Your task to perform on an android device: change keyboard looks Image 0: 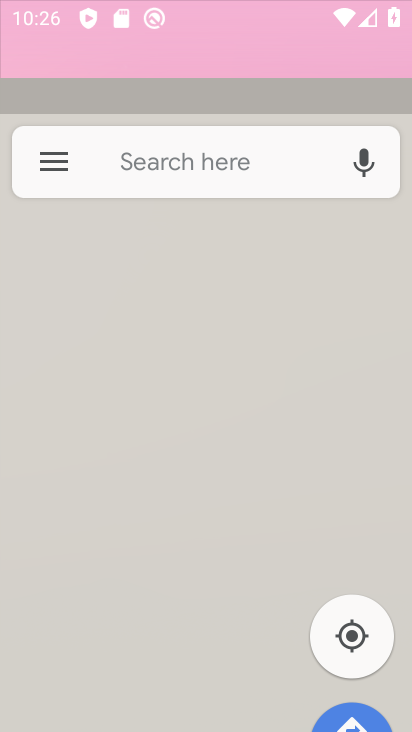
Step 0: click (252, 1)
Your task to perform on an android device: change keyboard looks Image 1: 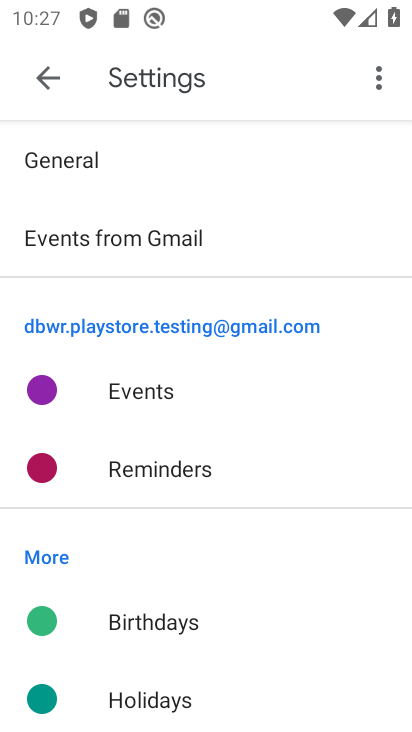
Step 1: press home button
Your task to perform on an android device: change keyboard looks Image 2: 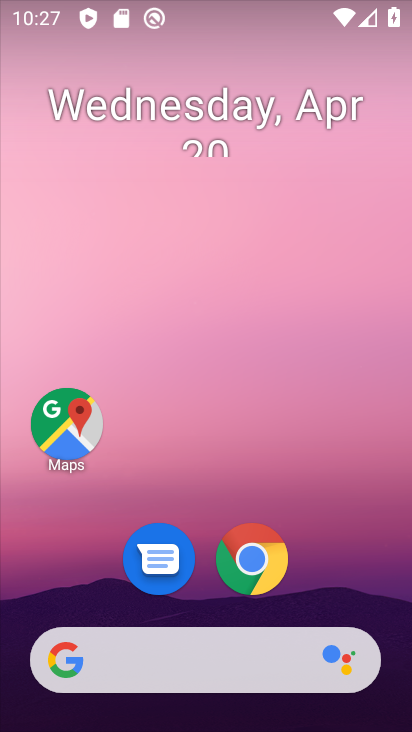
Step 2: drag from (293, 620) to (301, 12)
Your task to perform on an android device: change keyboard looks Image 3: 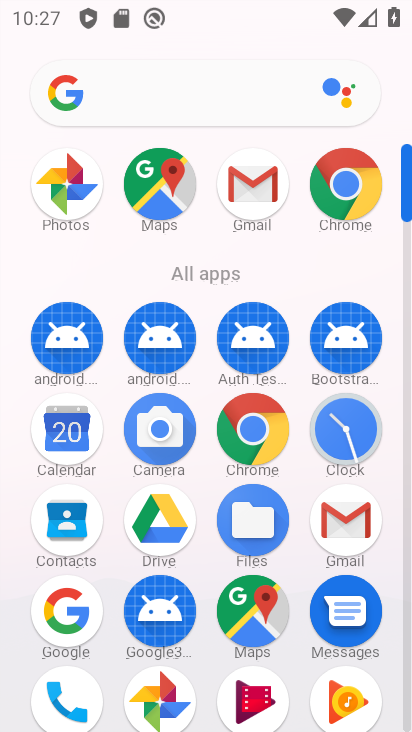
Step 3: drag from (213, 587) to (209, 92)
Your task to perform on an android device: change keyboard looks Image 4: 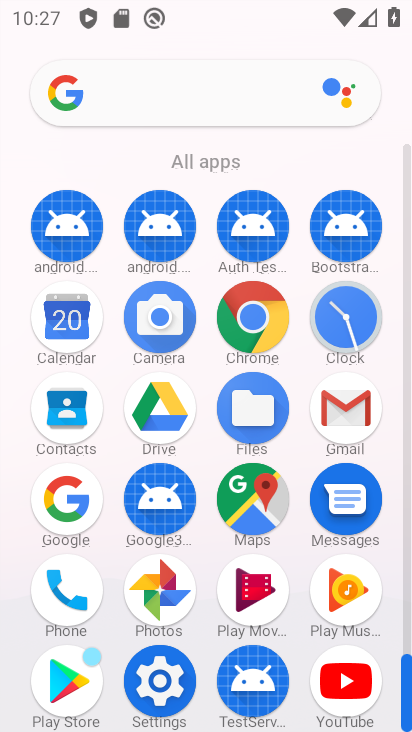
Step 4: click (157, 663)
Your task to perform on an android device: change keyboard looks Image 5: 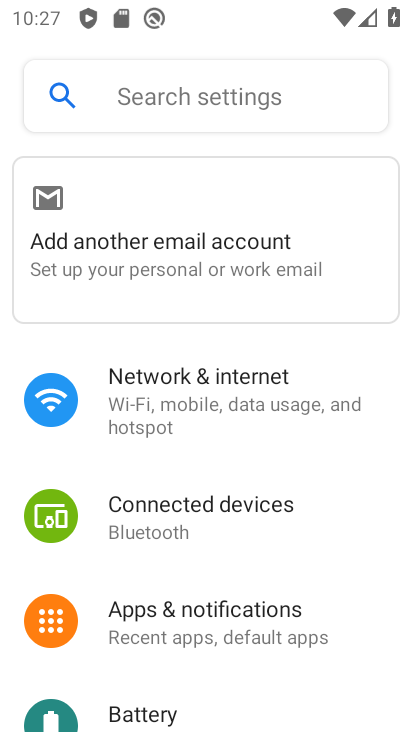
Step 5: drag from (158, 658) to (201, 26)
Your task to perform on an android device: change keyboard looks Image 6: 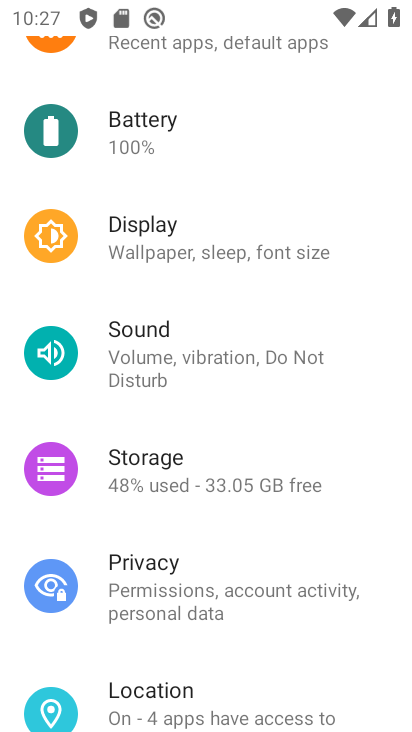
Step 6: drag from (179, 661) to (237, 157)
Your task to perform on an android device: change keyboard looks Image 7: 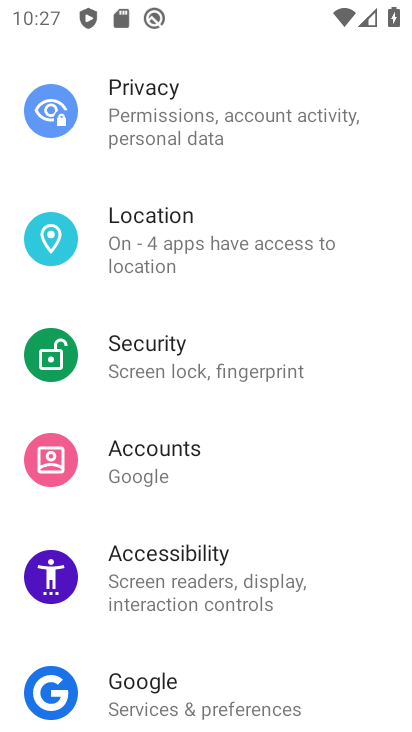
Step 7: drag from (178, 659) to (232, 341)
Your task to perform on an android device: change keyboard looks Image 8: 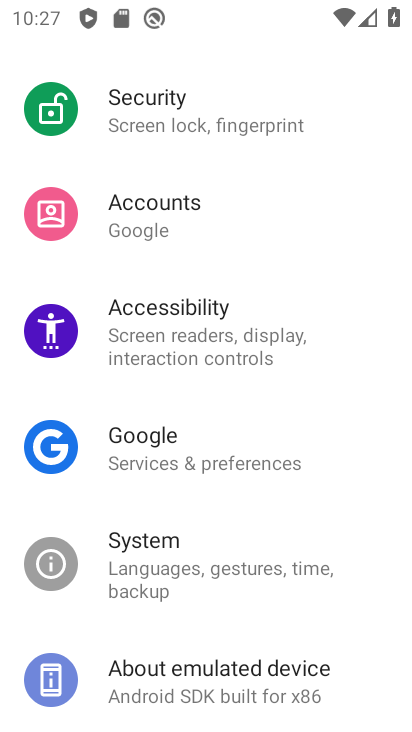
Step 8: click (220, 588)
Your task to perform on an android device: change keyboard looks Image 9: 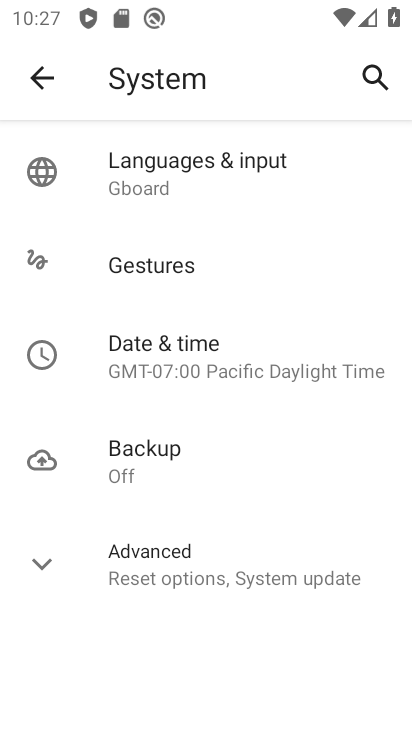
Step 9: click (177, 147)
Your task to perform on an android device: change keyboard looks Image 10: 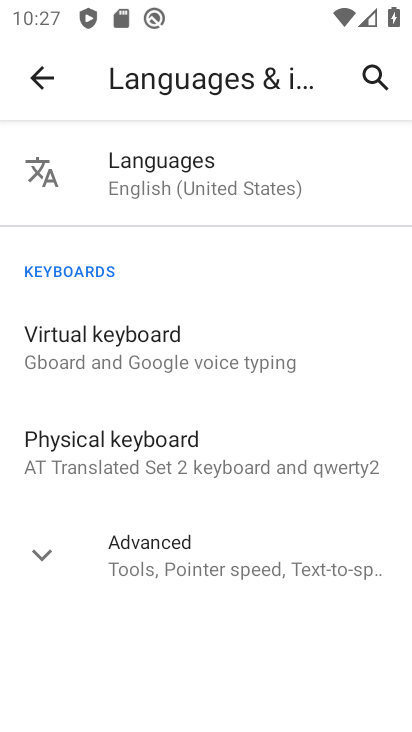
Step 10: click (148, 342)
Your task to perform on an android device: change keyboard looks Image 11: 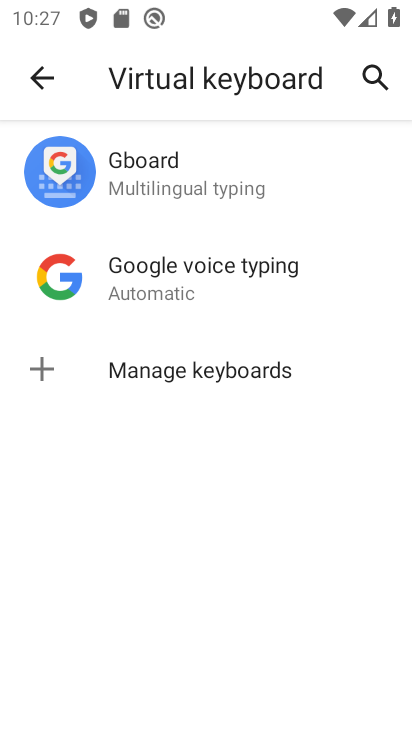
Step 11: click (177, 174)
Your task to perform on an android device: change keyboard looks Image 12: 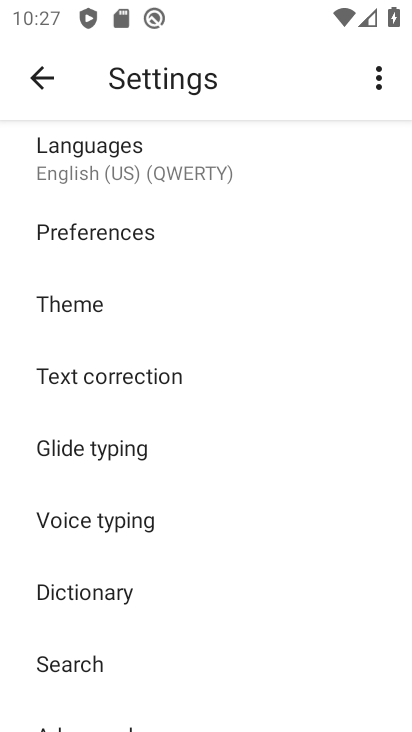
Step 12: click (93, 295)
Your task to perform on an android device: change keyboard looks Image 13: 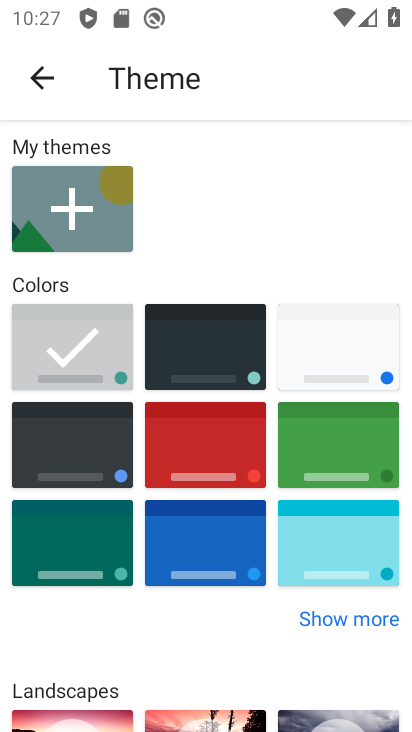
Step 13: click (184, 356)
Your task to perform on an android device: change keyboard looks Image 14: 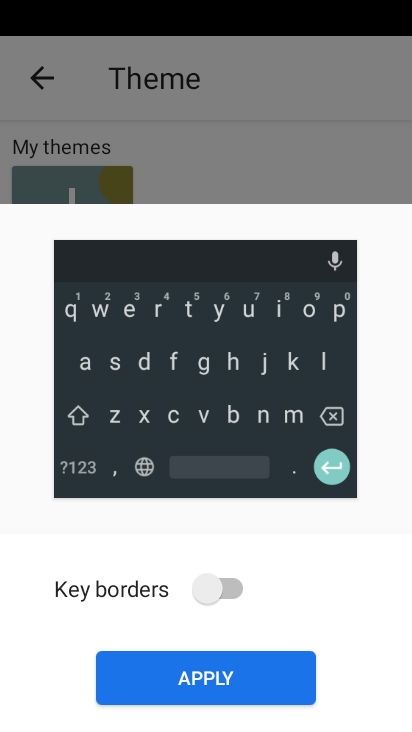
Step 14: click (187, 678)
Your task to perform on an android device: change keyboard looks Image 15: 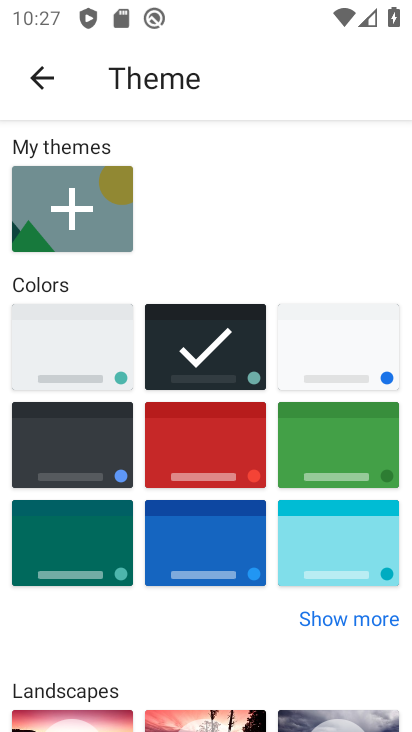
Step 15: task complete